Your task to perform on an android device: turn on location history Image 0: 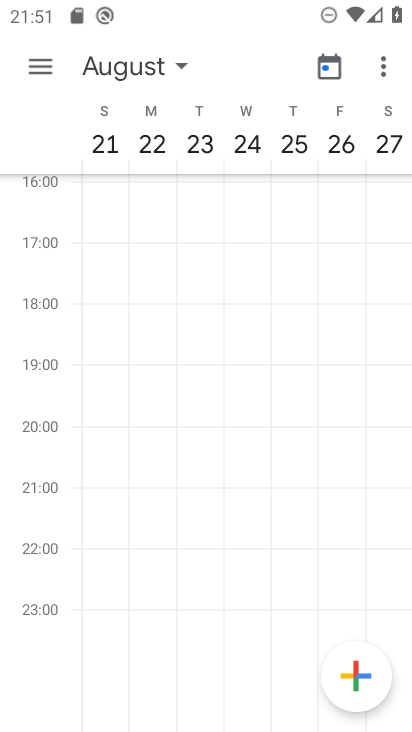
Step 0: press home button
Your task to perform on an android device: turn on location history Image 1: 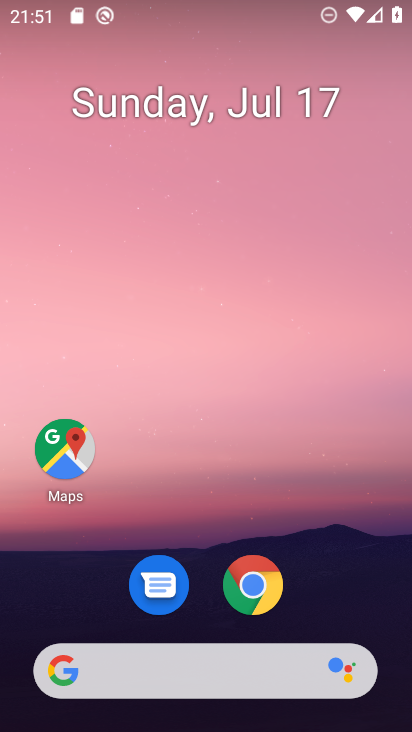
Step 1: click (61, 450)
Your task to perform on an android device: turn on location history Image 2: 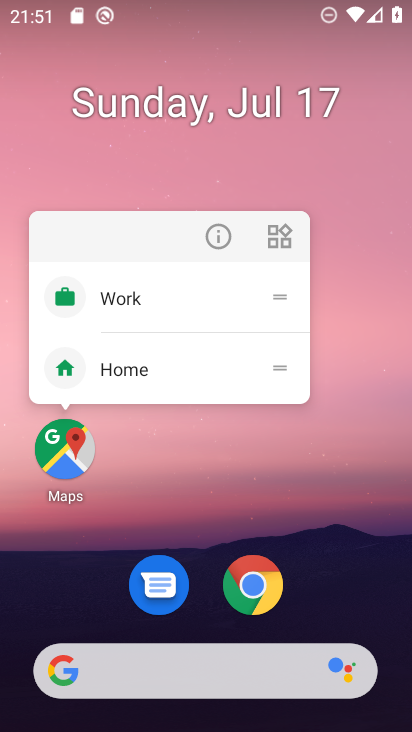
Step 2: click (64, 452)
Your task to perform on an android device: turn on location history Image 3: 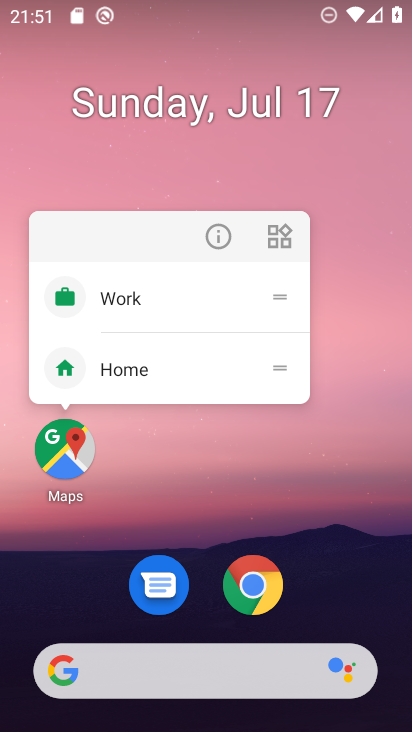
Step 3: click (64, 453)
Your task to perform on an android device: turn on location history Image 4: 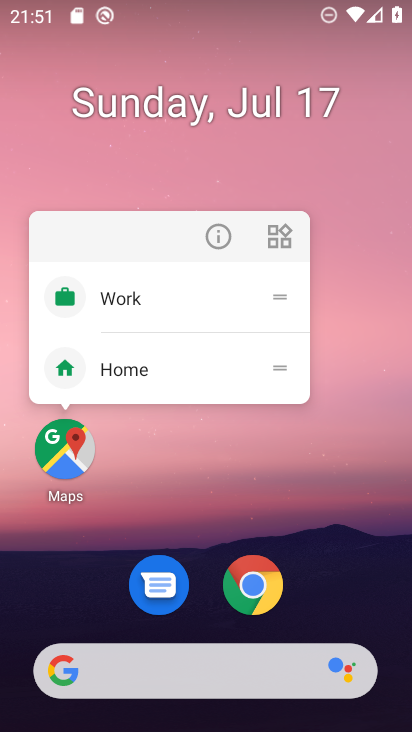
Step 4: click (64, 453)
Your task to perform on an android device: turn on location history Image 5: 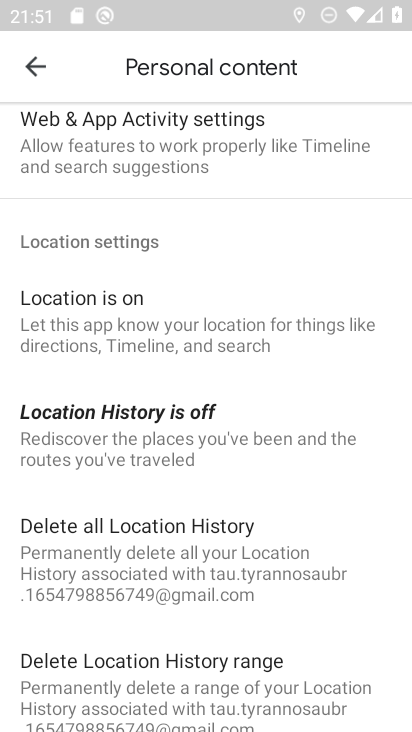
Step 5: click (89, 429)
Your task to perform on an android device: turn on location history Image 6: 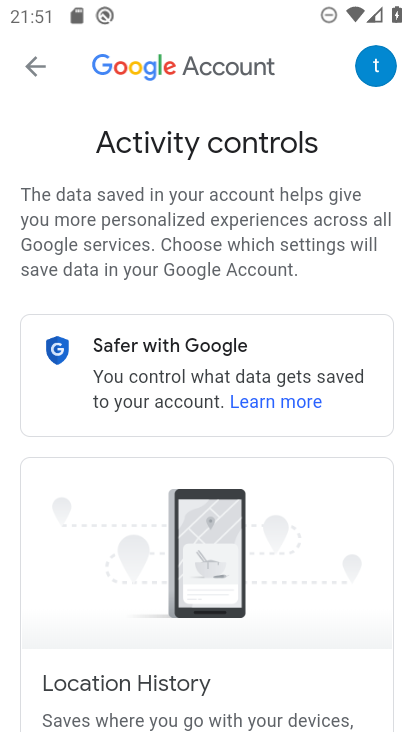
Step 6: drag from (152, 605) to (290, 73)
Your task to perform on an android device: turn on location history Image 7: 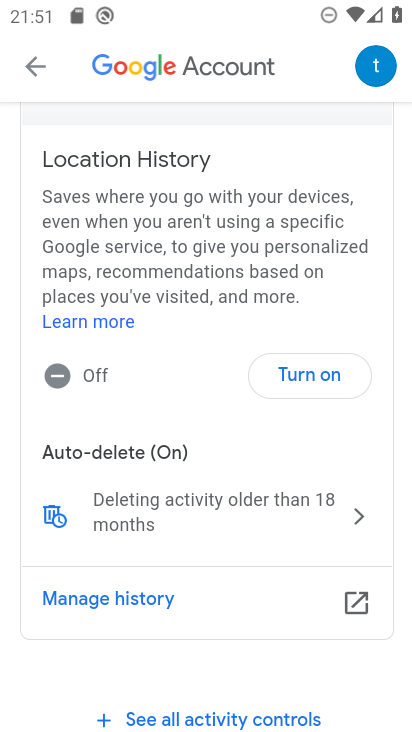
Step 7: drag from (232, 598) to (320, 143)
Your task to perform on an android device: turn on location history Image 8: 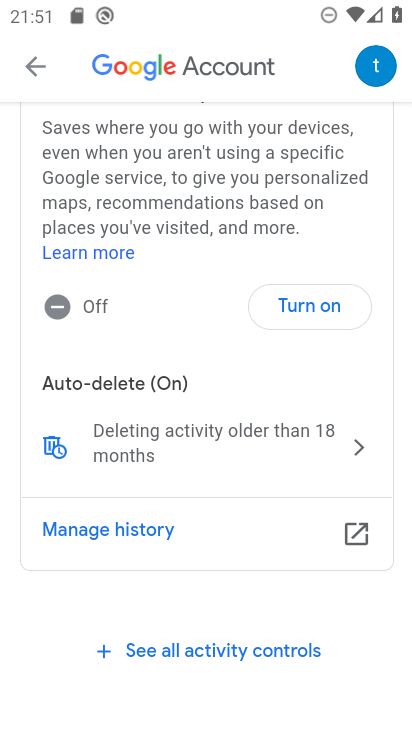
Step 8: click (310, 305)
Your task to perform on an android device: turn on location history Image 9: 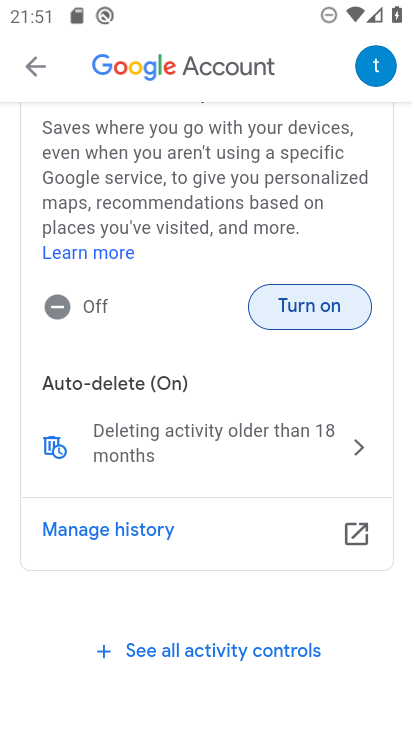
Step 9: click (330, 308)
Your task to perform on an android device: turn on location history Image 10: 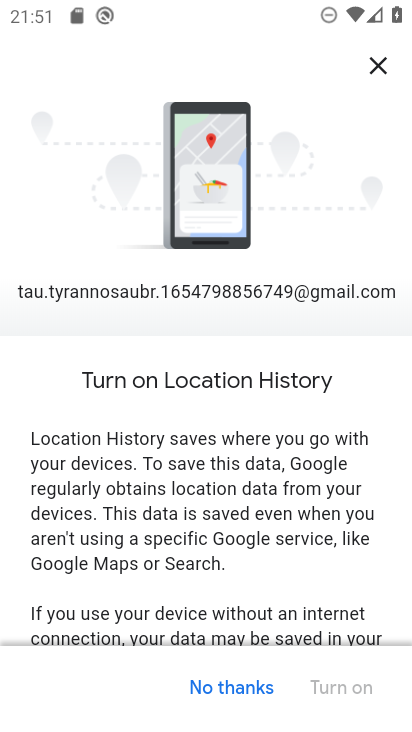
Step 10: drag from (260, 606) to (313, 3)
Your task to perform on an android device: turn on location history Image 11: 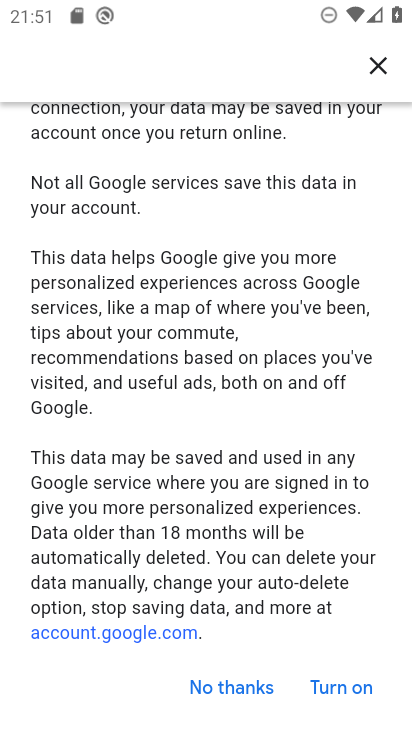
Step 11: drag from (272, 566) to (349, 73)
Your task to perform on an android device: turn on location history Image 12: 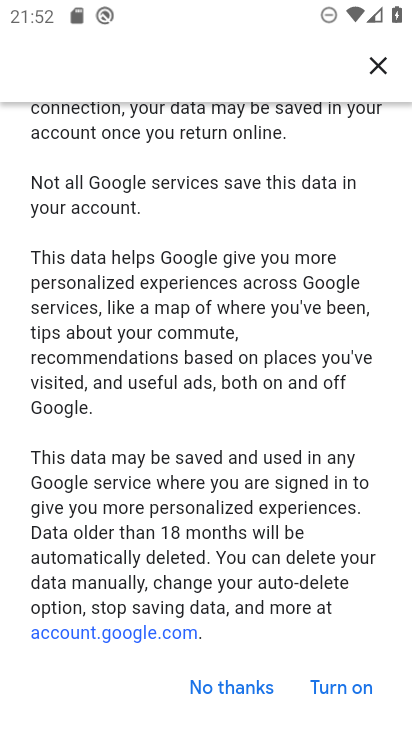
Step 12: drag from (306, 374) to (352, 98)
Your task to perform on an android device: turn on location history Image 13: 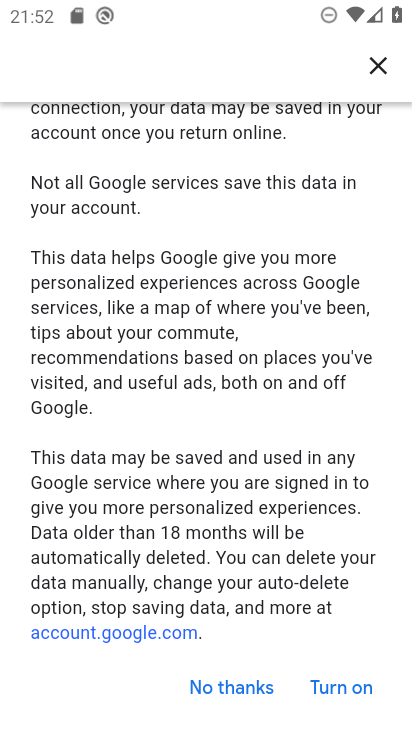
Step 13: click (336, 690)
Your task to perform on an android device: turn on location history Image 14: 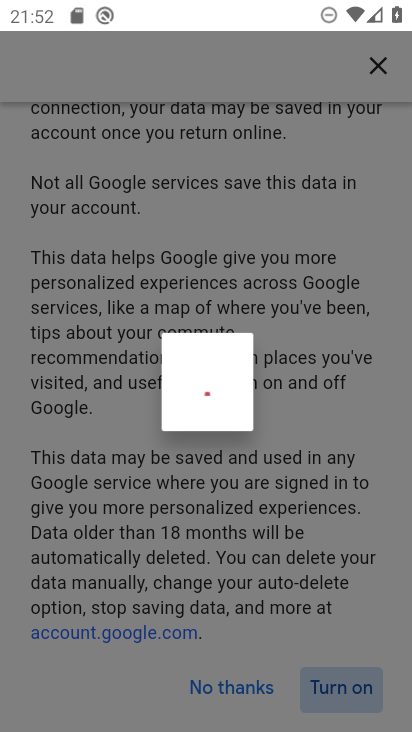
Step 14: click (343, 688)
Your task to perform on an android device: turn on location history Image 15: 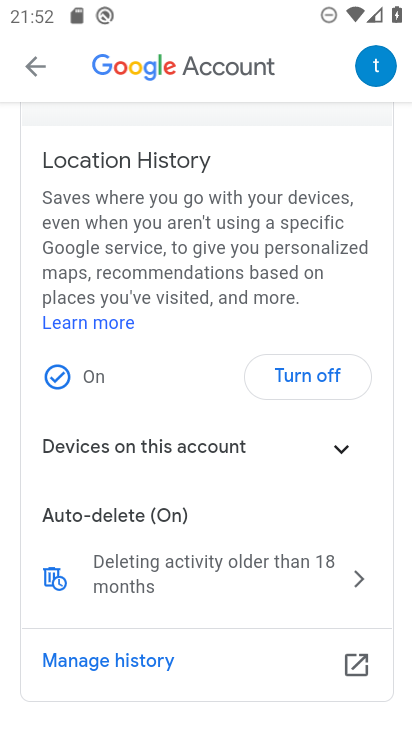
Step 15: task complete